Your task to perform on an android device: Open Amazon Image 0: 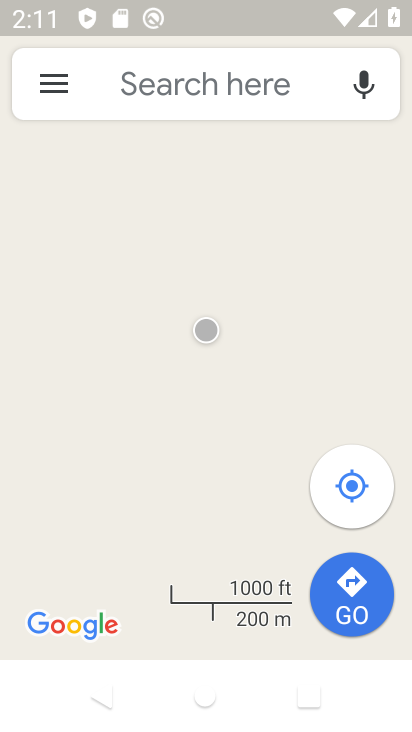
Step 0: press home button
Your task to perform on an android device: Open Amazon Image 1: 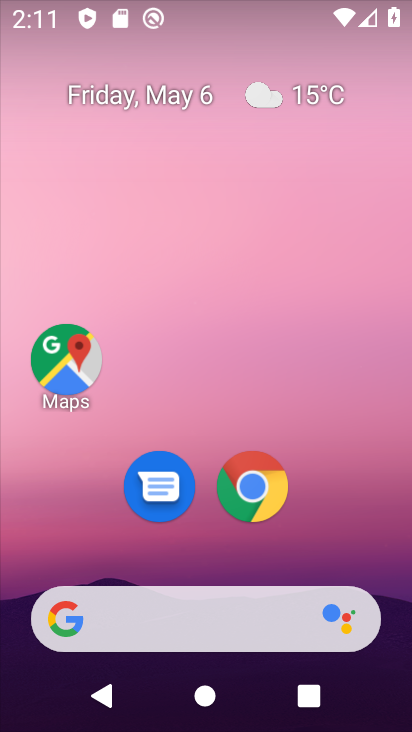
Step 1: click (243, 491)
Your task to perform on an android device: Open Amazon Image 2: 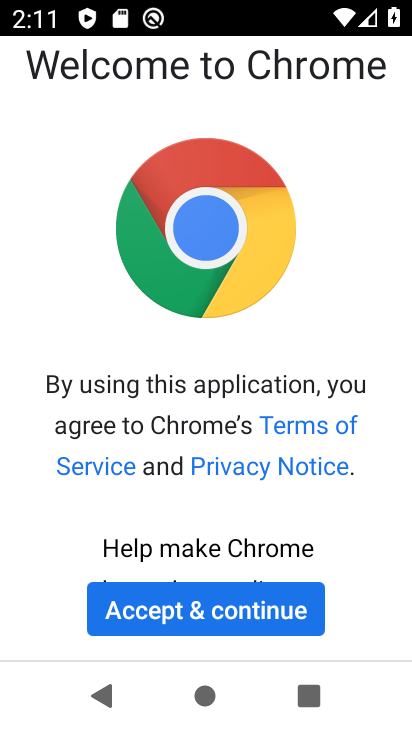
Step 2: click (242, 606)
Your task to perform on an android device: Open Amazon Image 3: 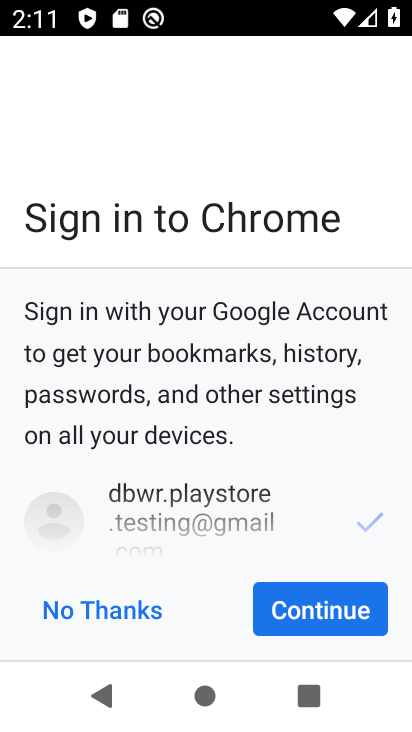
Step 3: click (320, 610)
Your task to perform on an android device: Open Amazon Image 4: 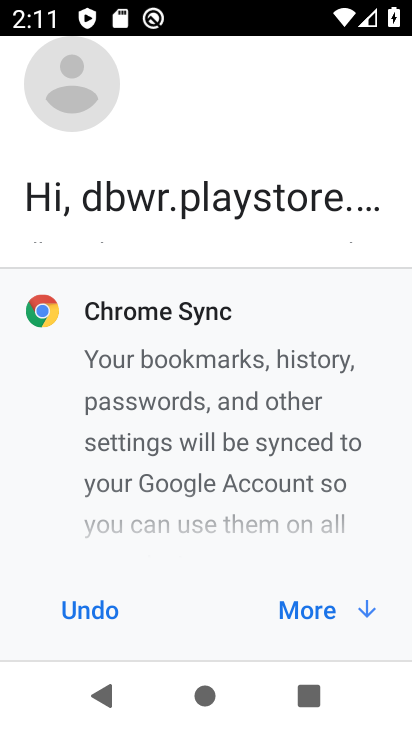
Step 4: click (320, 610)
Your task to perform on an android device: Open Amazon Image 5: 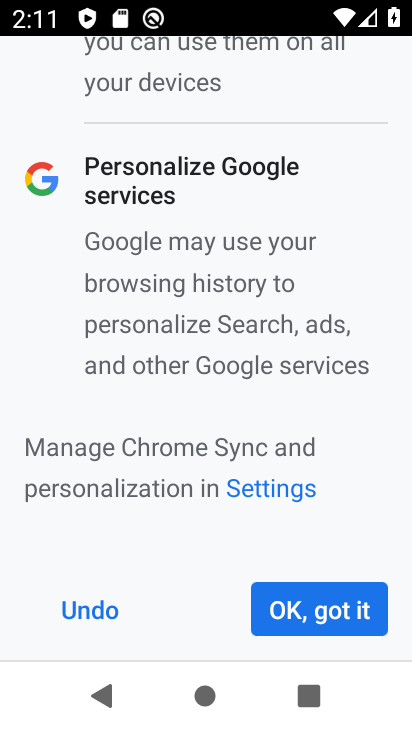
Step 5: click (354, 609)
Your task to perform on an android device: Open Amazon Image 6: 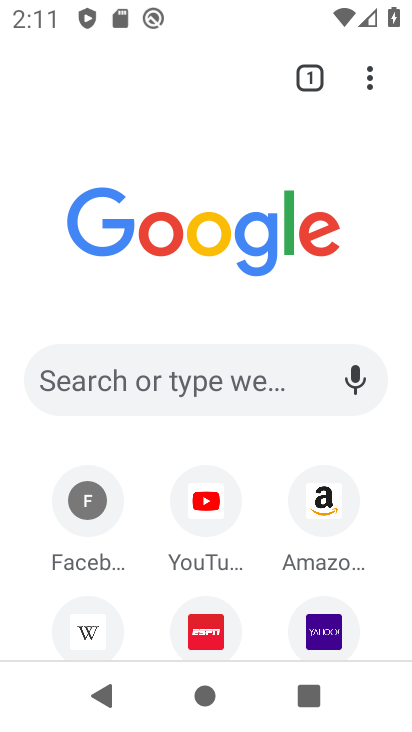
Step 6: click (321, 523)
Your task to perform on an android device: Open Amazon Image 7: 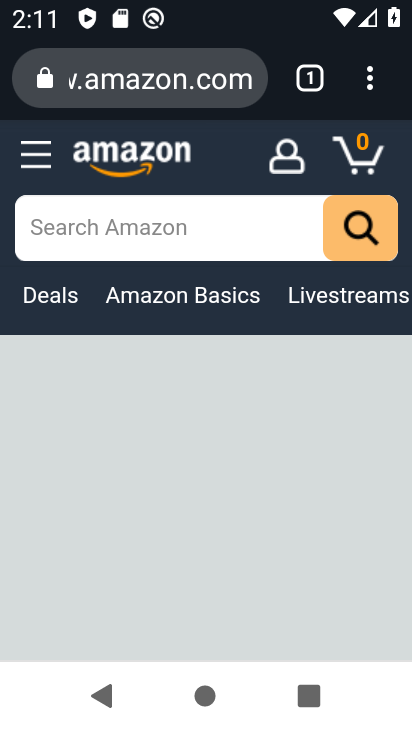
Step 7: task complete